Your task to perform on an android device: Open the map Image 0: 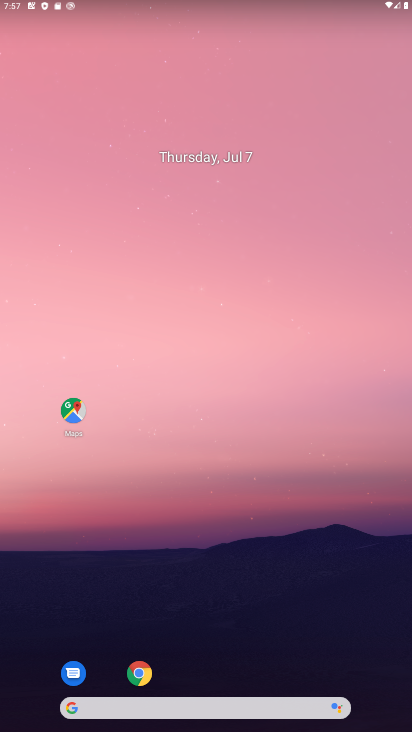
Step 0: click (70, 425)
Your task to perform on an android device: Open the map Image 1: 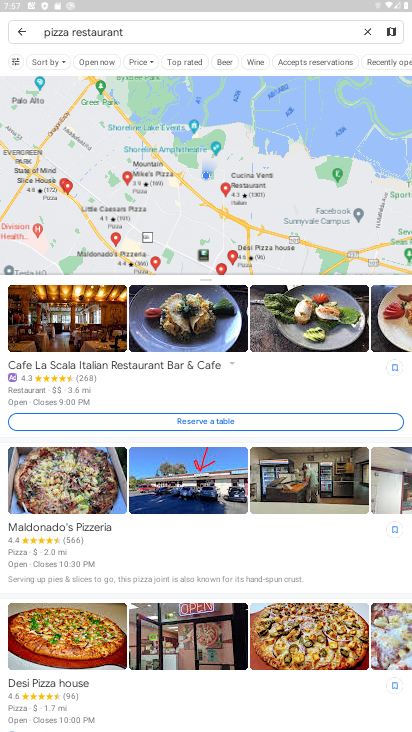
Step 1: task complete